Your task to perform on an android device: open wifi settings Image 0: 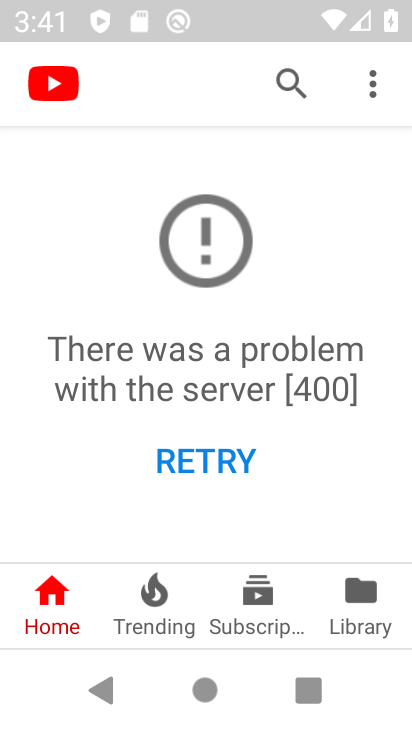
Step 0: press back button
Your task to perform on an android device: open wifi settings Image 1: 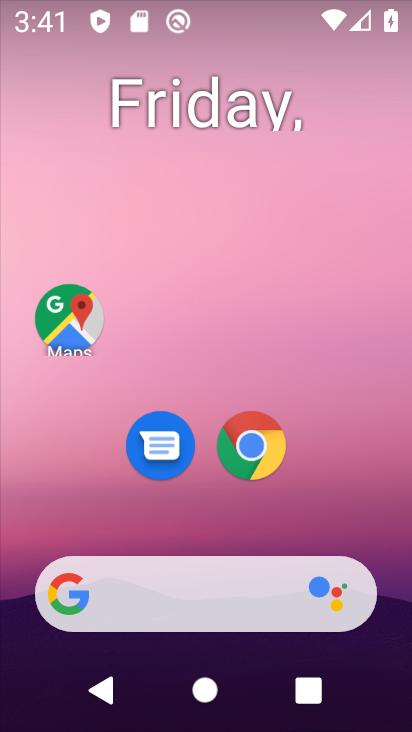
Step 1: drag from (357, 510) to (296, 46)
Your task to perform on an android device: open wifi settings Image 2: 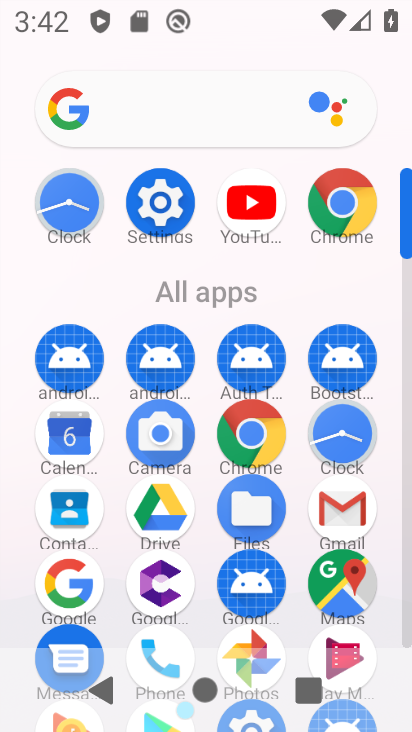
Step 2: drag from (20, 554) to (0, 168)
Your task to perform on an android device: open wifi settings Image 3: 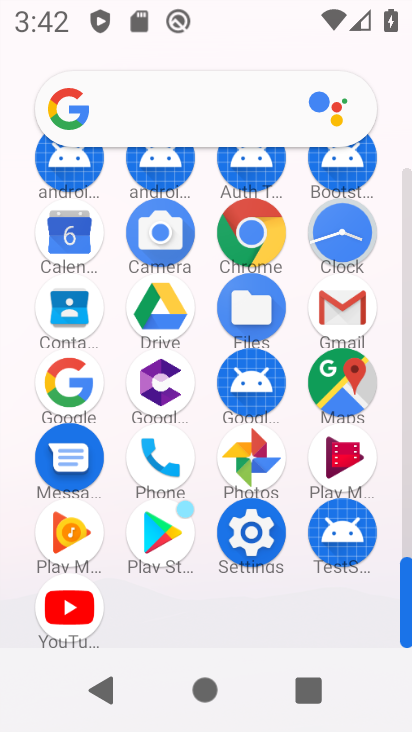
Step 3: click (248, 533)
Your task to perform on an android device: open wifi settings Image 4: 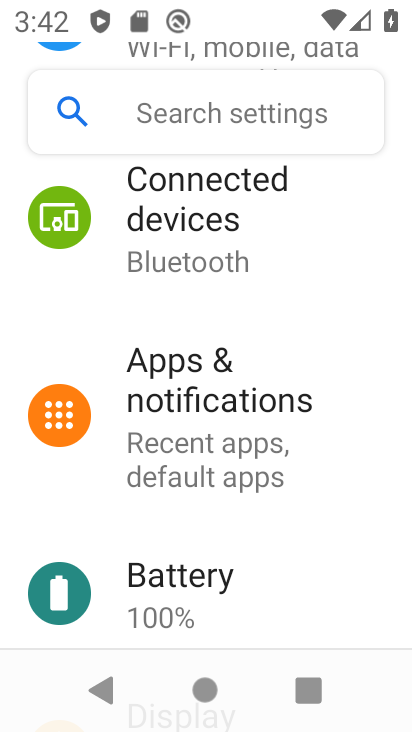
Step 4: drag from (292, 521) to (311, 130)
Your task to perform on an android device: open wifi settings Image 5: 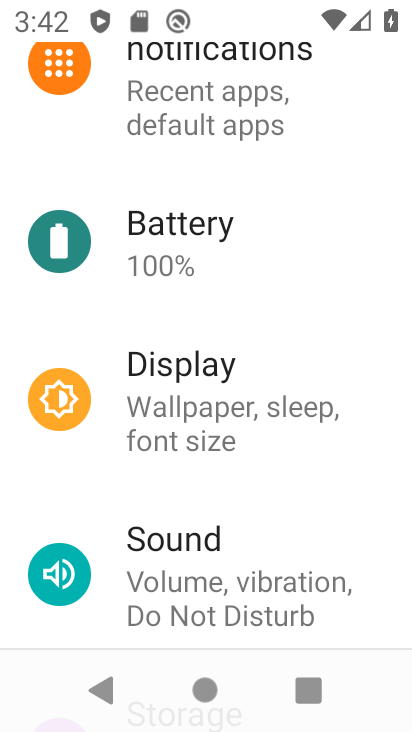
Step 5: drag from (274, 514) to (309, 54)
Your task to perform on an android device: open wifi settings Image 6: 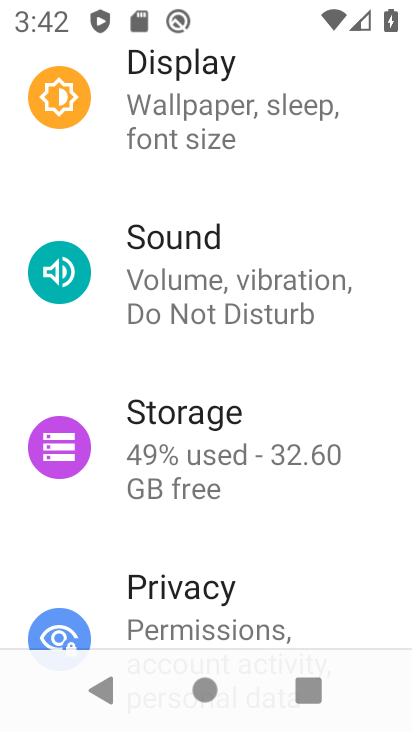
Step 6: drag from (293, 171) to (298, 584)
Your task to perform on an android device: open wifi settings Image 7: 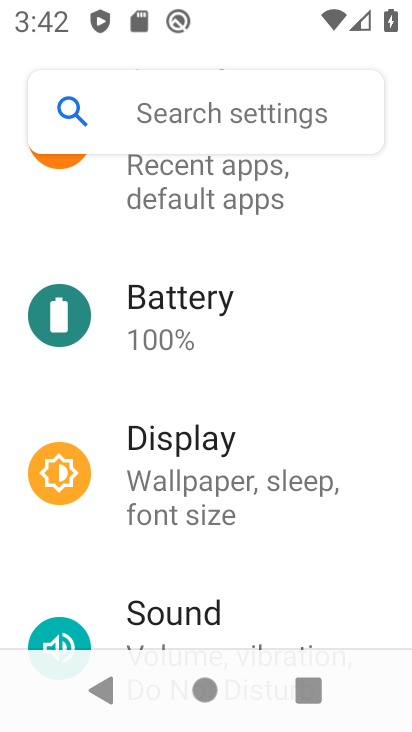
Step 7: drag from (291, 251) to (295, 583)
Your task to perform on an android device: open wifi settings Image 8: 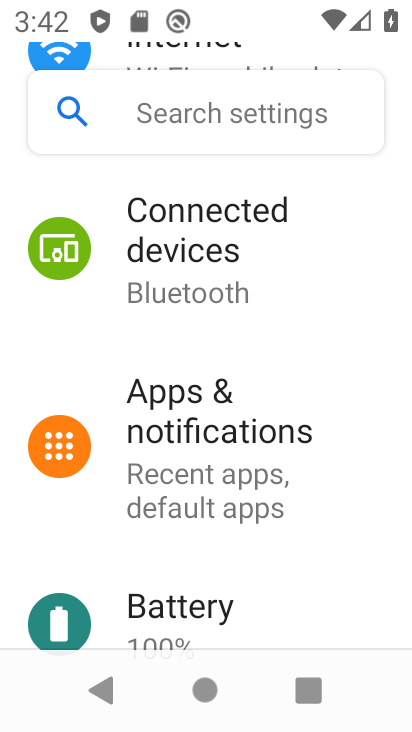
Step 8: drag from (308, 242) to (311, 601)
Your task to perform on an android device: open wifi settings Image 9: 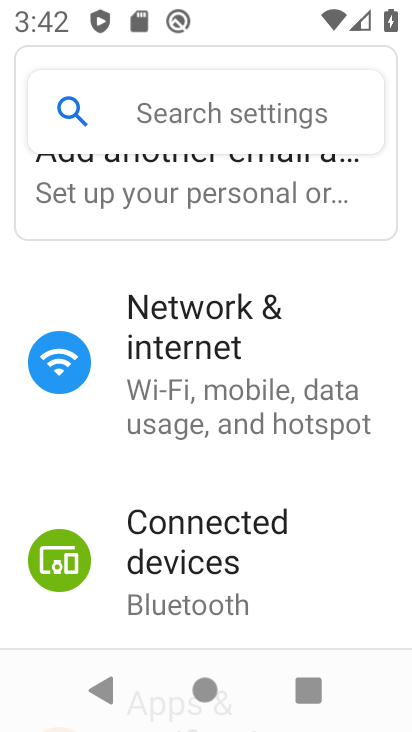
Step 9: click (252, 377)
Your task to perform on an android device: open wifi settings Image 10: 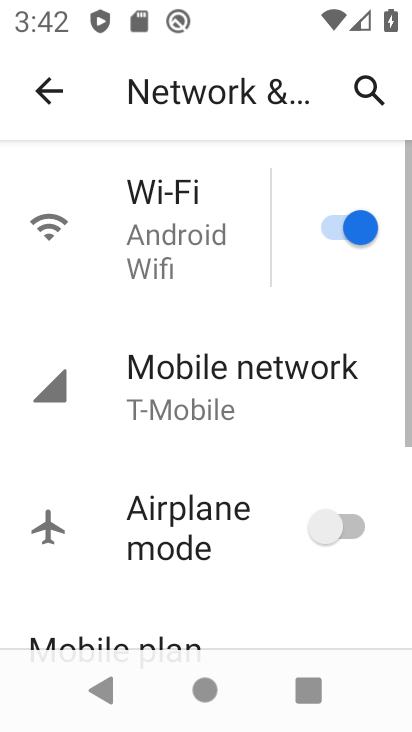
Step 10: click (194, 254)
Your task to perform on an android device: open wifi settings Image 11: 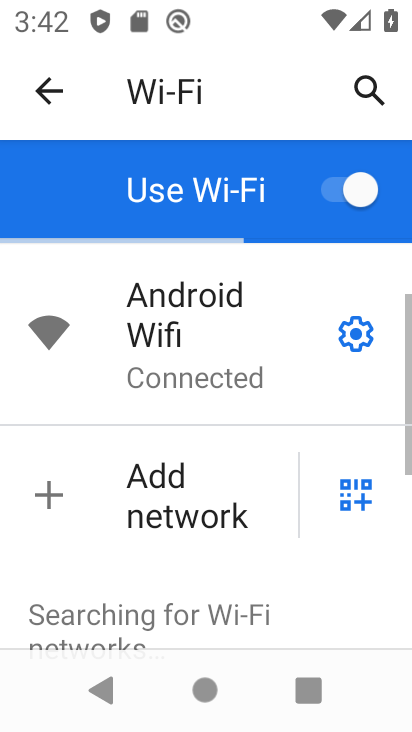
Step 11: task complete